Your task to perform on an android device: Go to Google Image 0: 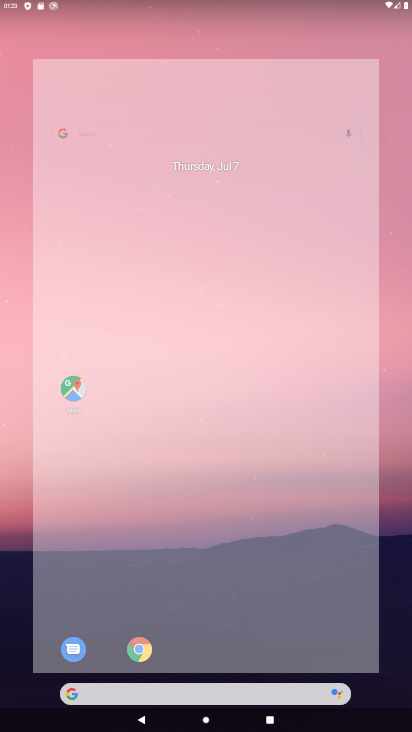
Step 0: press home button
Your task to perform on an android device: Go to Google Image 1: 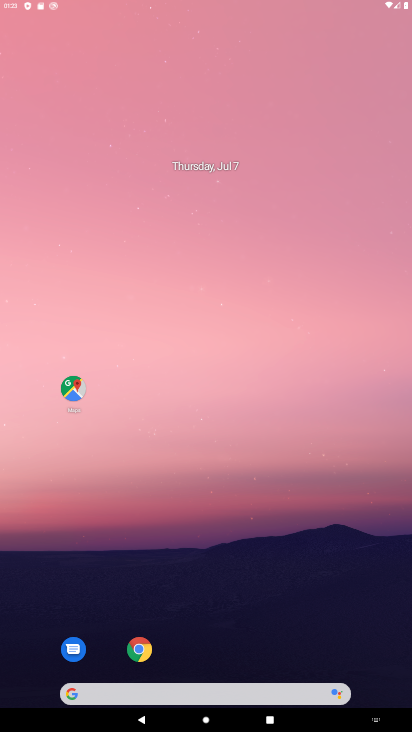
Step 1: drag from (305, 624) to (181, 112)
Your task to perform on an android device: Go to Google Image 2: 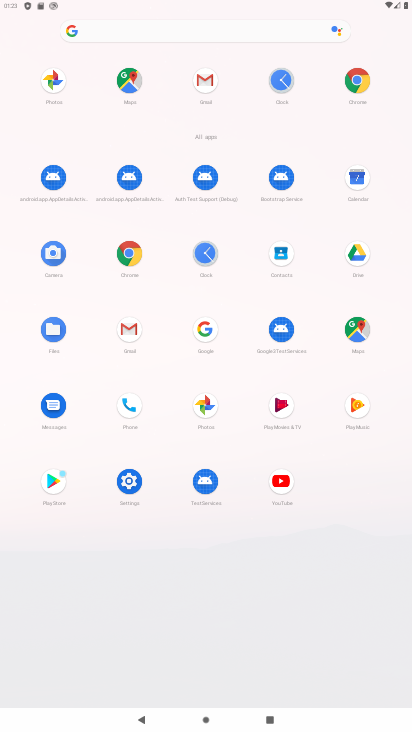
Step 2: click (210, 324)
Your task to perform on an android device: Go to Google Image 3: 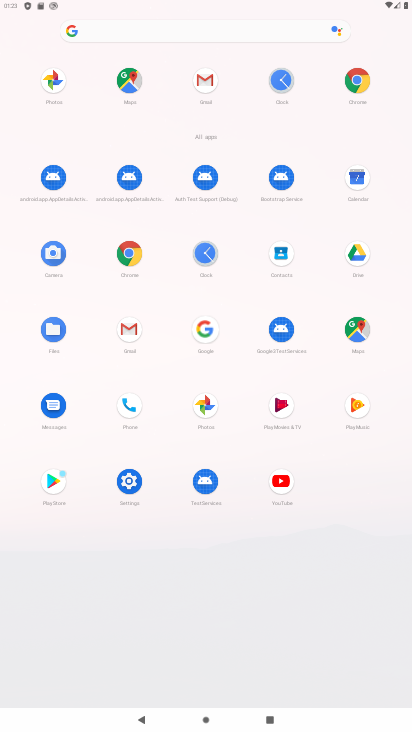
Step 3: click (209, 337)
Your task to perform on an android device: Go to Google Image 4: 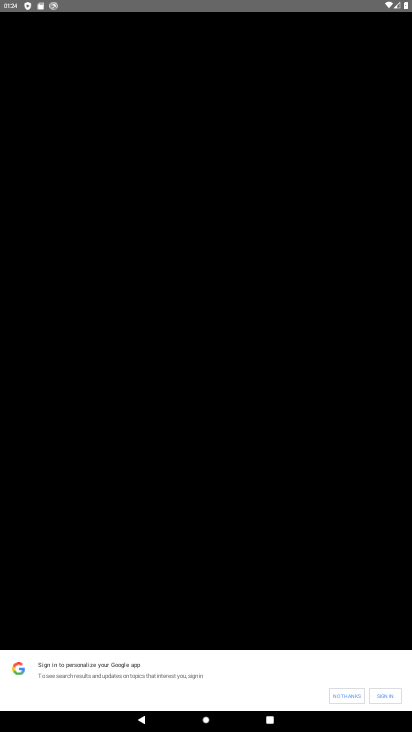
Step 4: drag from (196, 655) to (246, 181)
Your task to perform on an android device: Go to Google Image 5: 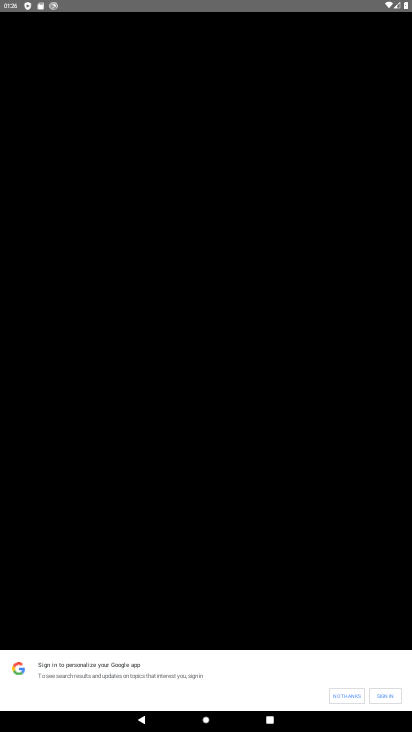
Step 5: drag from (226, 675) to (269, 396)
Your task to perform on an android device: Go to Google Image 6: 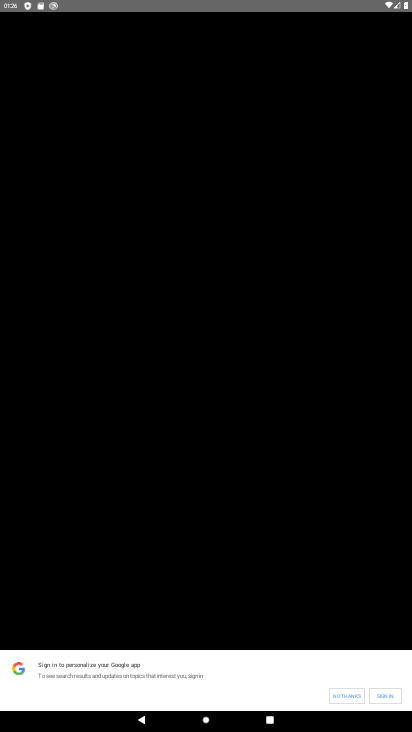
Step 6: press home button
Your task to perform on an android device: Go to Google Image 7: 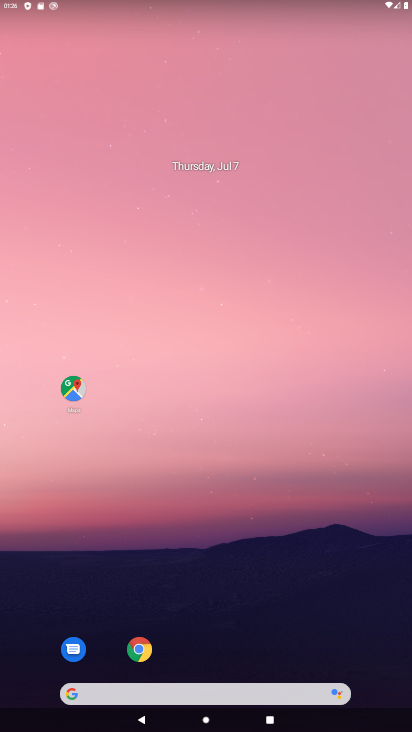
Step 7: drag from (307, 679) to (214, 36)
Your task to perform on an android device: Go to Google Image 8: 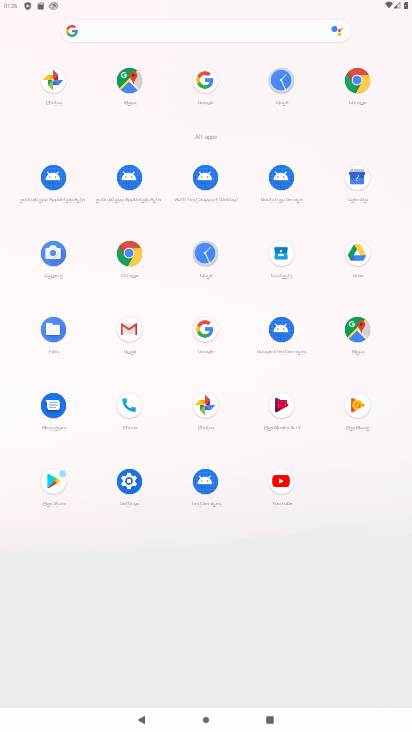
Step 8: click (203, 83)
Your task to perform on an android device: Go to Google Image 9: 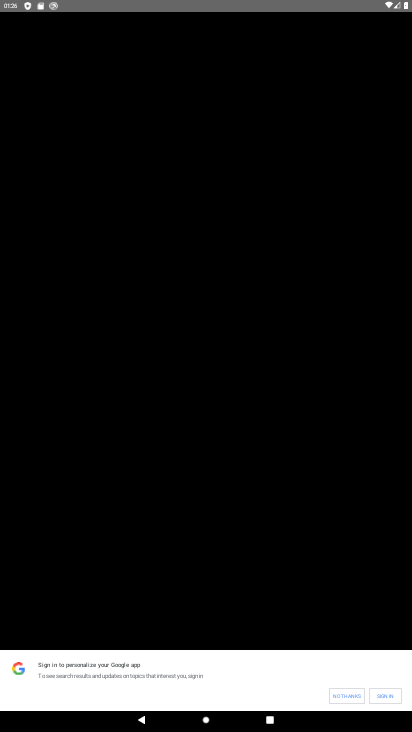
Step 9: task complete